Your task to perform on an android device: Open Amazon Image 0: 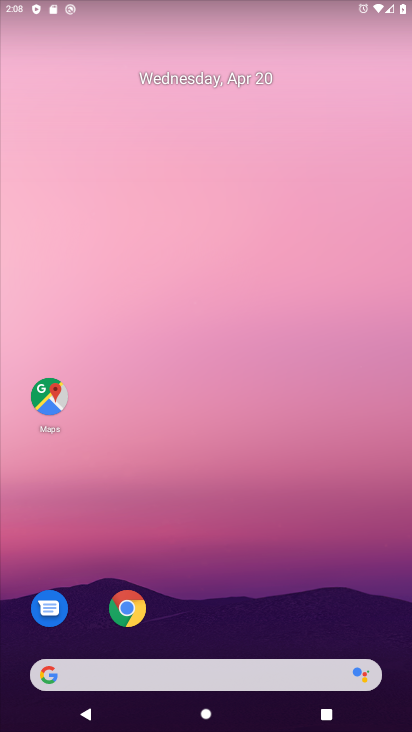
Step 0: click (133, 607)
Your task to perform on an android device: Open Amazon Image 1: 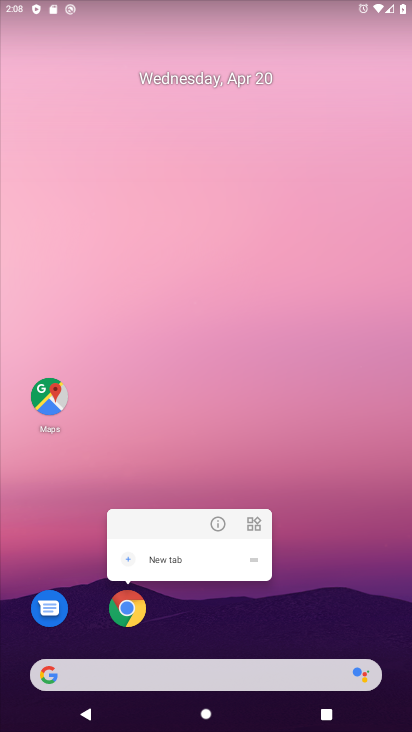
Step 1: click (133, 607)
Your task to perform on an android device: Open Amazon Image 2: 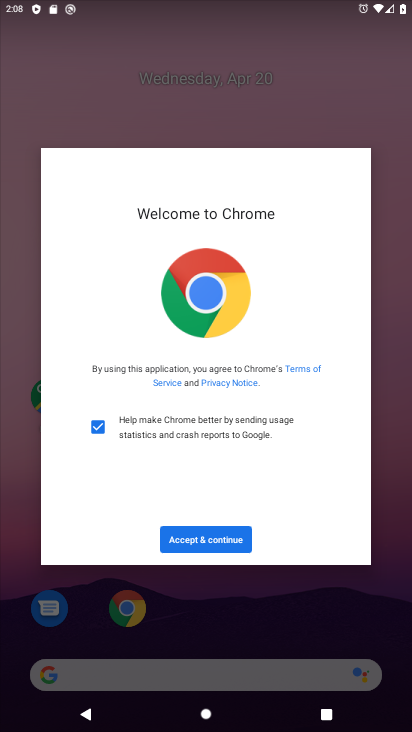
Step 2: click (216, 549)
Your task to perform on an android device: Open Amazon Image 3: 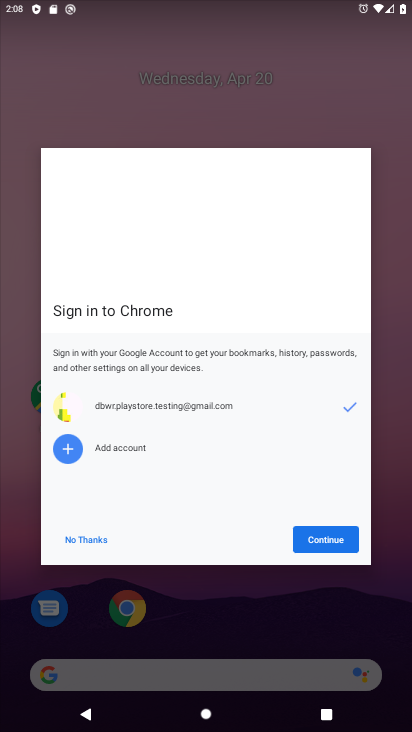
Step 3: click (304, 544)
Your task to perform on an android device: Open Amazon Image 4: 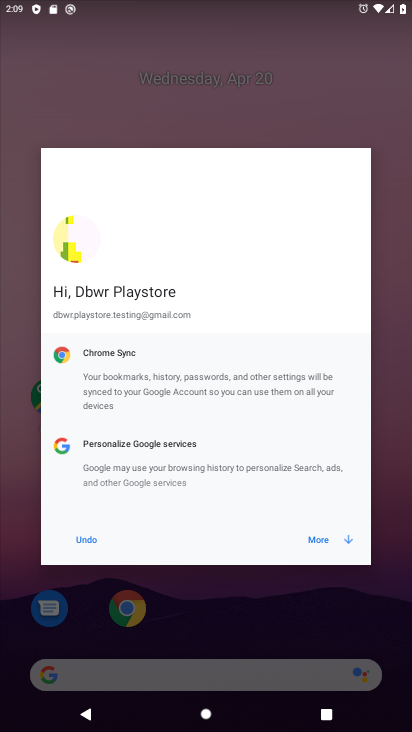
Step 4: click (305, 542)
Your task to perform on an android device: Open Amazon Image 5: 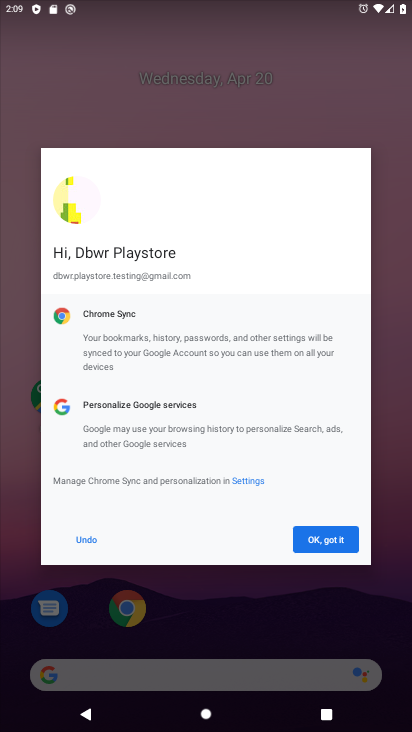
Step 5: click (305, 542)
Your task to perform on an android device: Open Amazon Image 6: 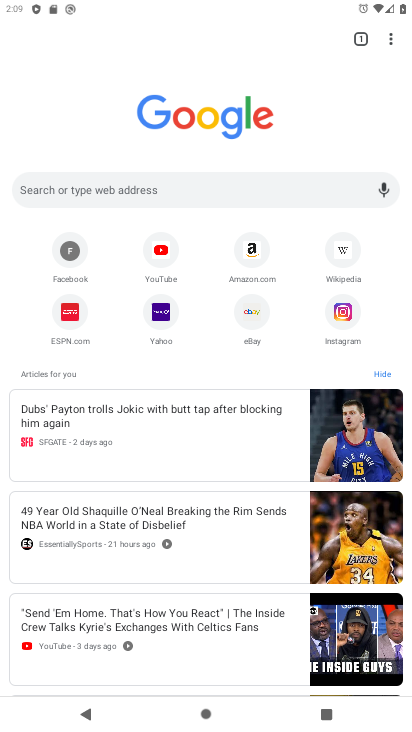
Step 6: click (251, 253)
Your task to perform on an android device: Open Amazon Image 7: 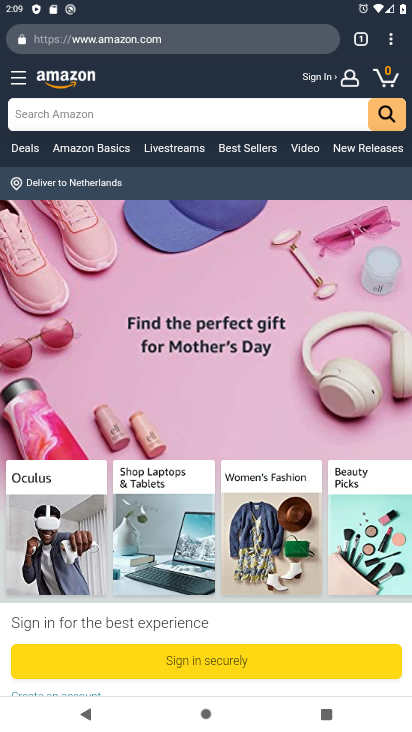
Step 7: task complete